Your task to perform on an android device: Is it going to rain this weekend? Image 0: 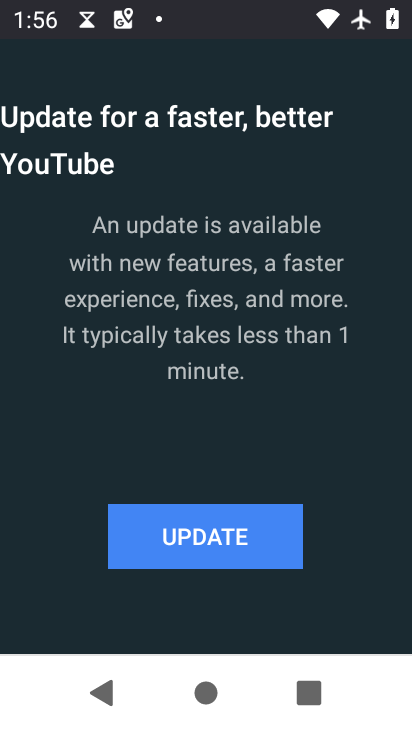
Step 0: press home button
Your task to perform on an android device: Is it going to rain this weekend? Image 1: 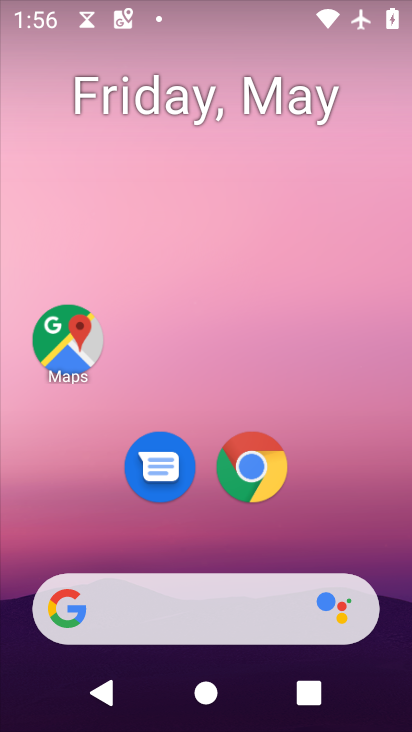
Step 1: drag from (315, 486) to (226, 173)
Your task to perform on an android device: Is it going to rain this weekend? Image 2: 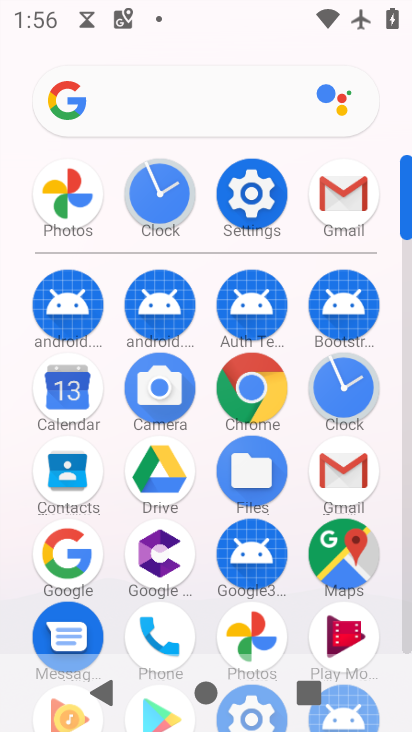
Step 2: drag from (101, 500) to (101, 343)
Your task to perform on an android device: Is it going to rain this weekend? Image 3: 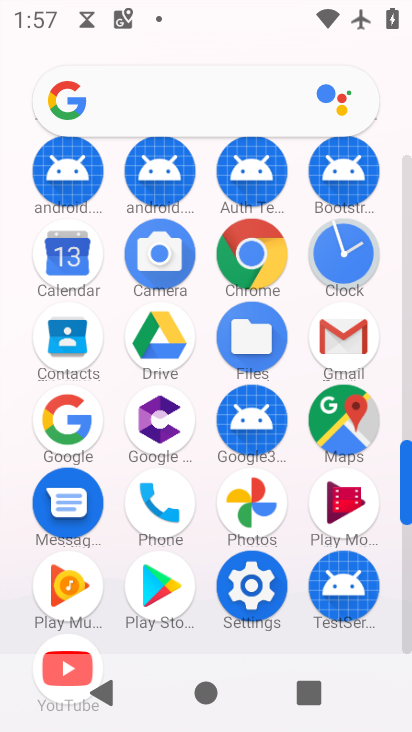
Step 3: click (63, 419)
Your task to perform on an android device: Is it going to rain this weekend? Image 4: 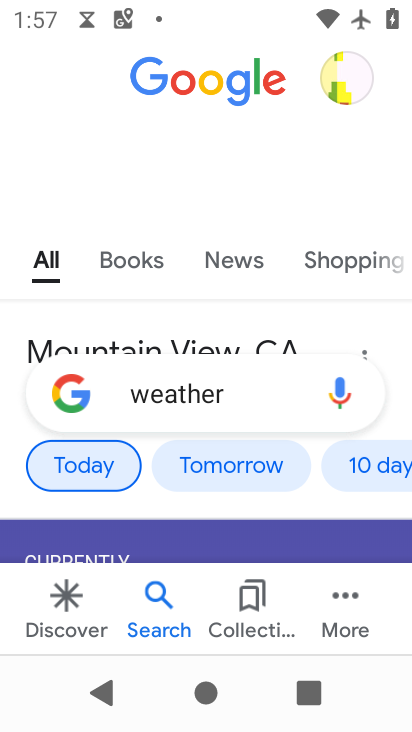
Step 4: click (214, 382)
Your task to perform on an android device: Is it going to rain this weekend? Image 5: 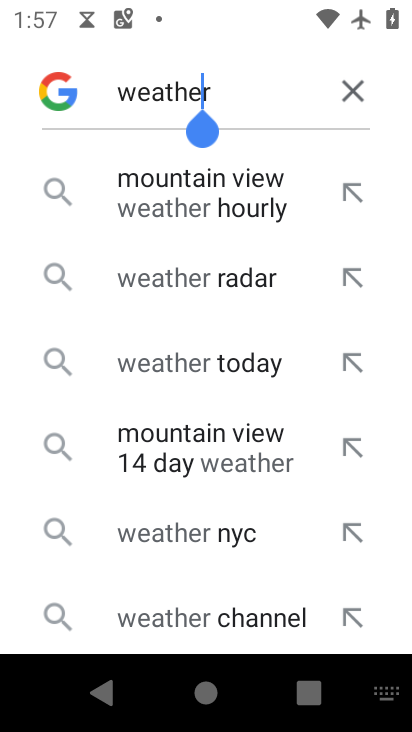
Step 5: click (350, 85)
Your task to perform on an android device: Is it going to rain this weekend? Image 6: 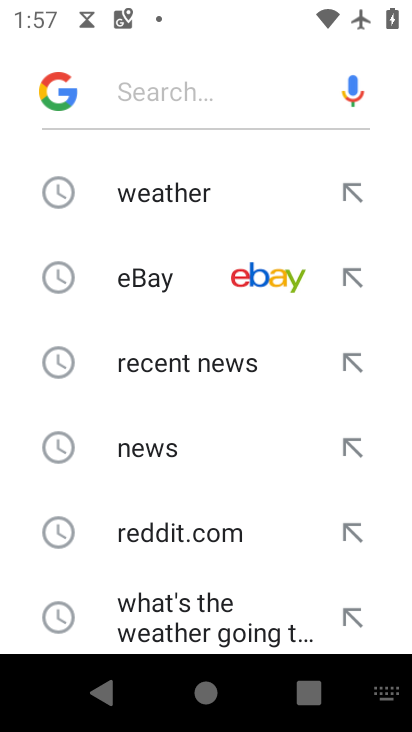
Step 6: type "Is it going to rain this weekend?"
Your task to perform on an android device: Is it going to rain this weekend? Image 7: 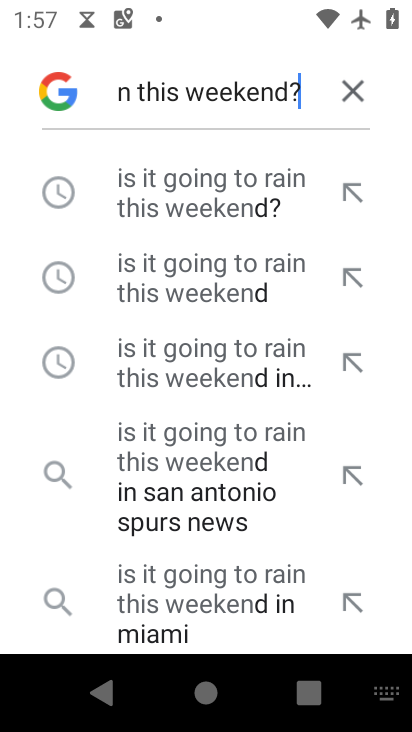
Step 7: type ""
Your task to perform on an android device: Is it going to rain this weekend? Image 8: 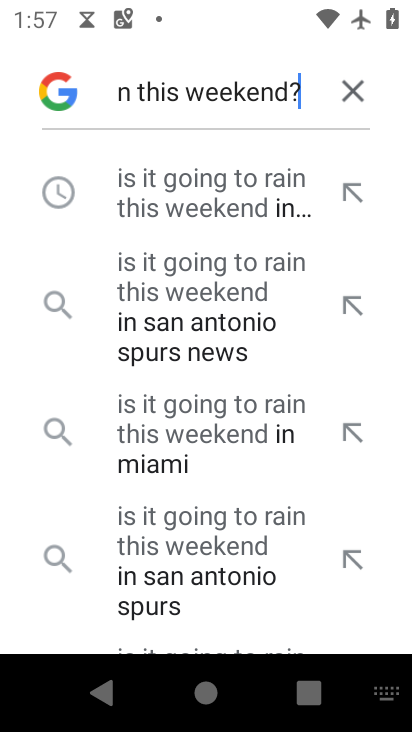
Step 8: click (180, 185)
Your task to perform on an android device: Is it going to rain this weekend? Image 9: 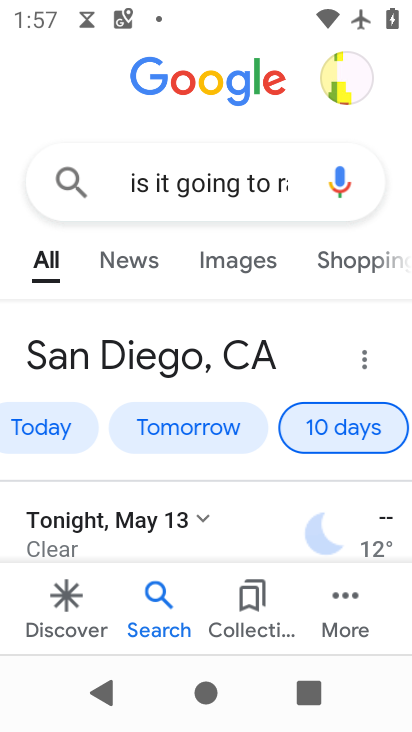
Step 9: task complete